Your task to perform on an android device: open app "LinkedIn" Image 0: 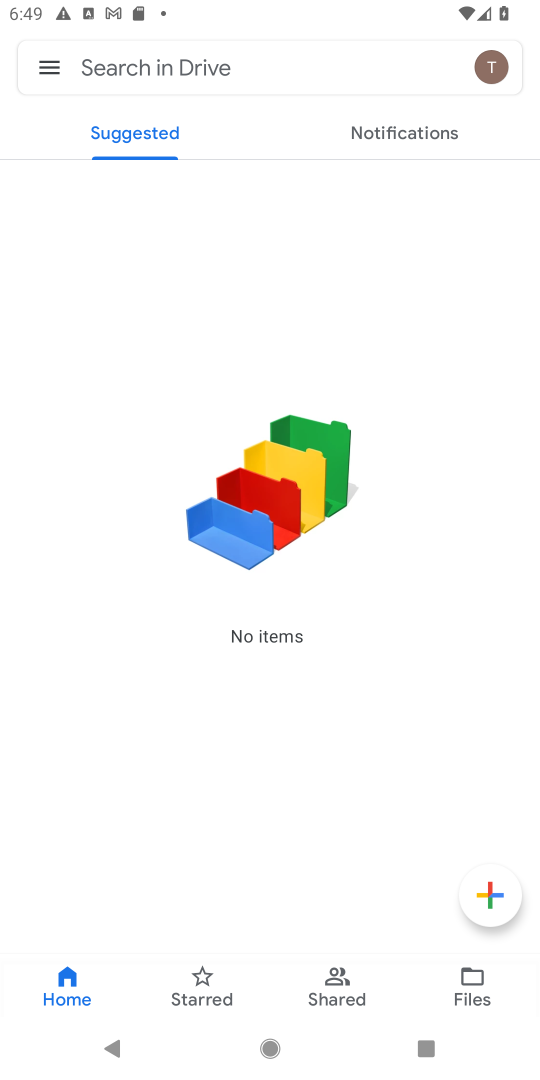
Step 0: press home button
Your task to perform on an android device: open app "LinkedIn" Image 1: 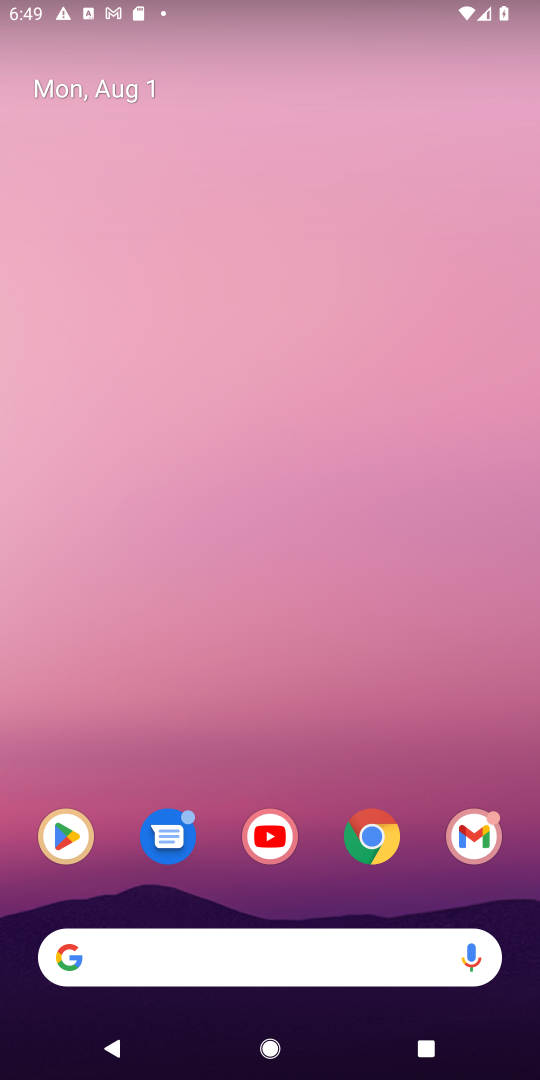
Step 1: click (61, 830)
Your task to perform on an android device: open app "LinkedIn" Image 2: 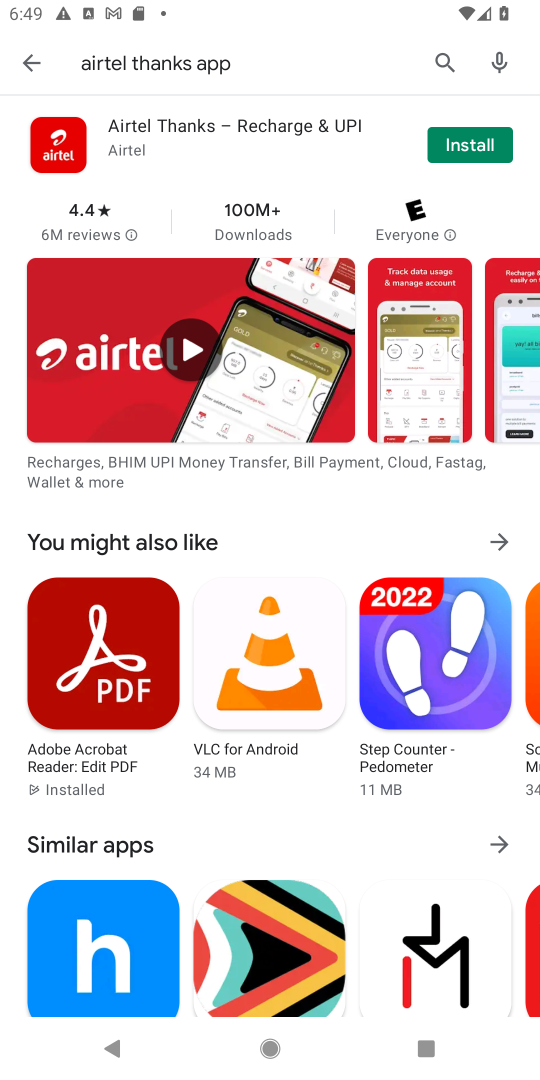
Step 2: click (436, 61)
Your task to perform on an android device: open app "LinkedIn" Image 3: 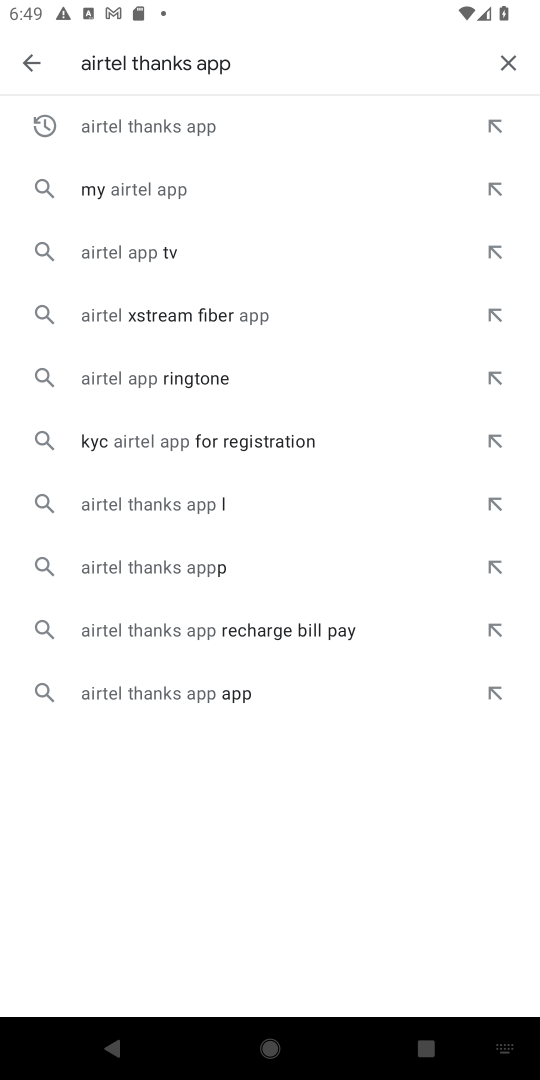
Step 3: click (507, 63)
Your task to perform on an android device: open app "LinkedIn" Image 4: 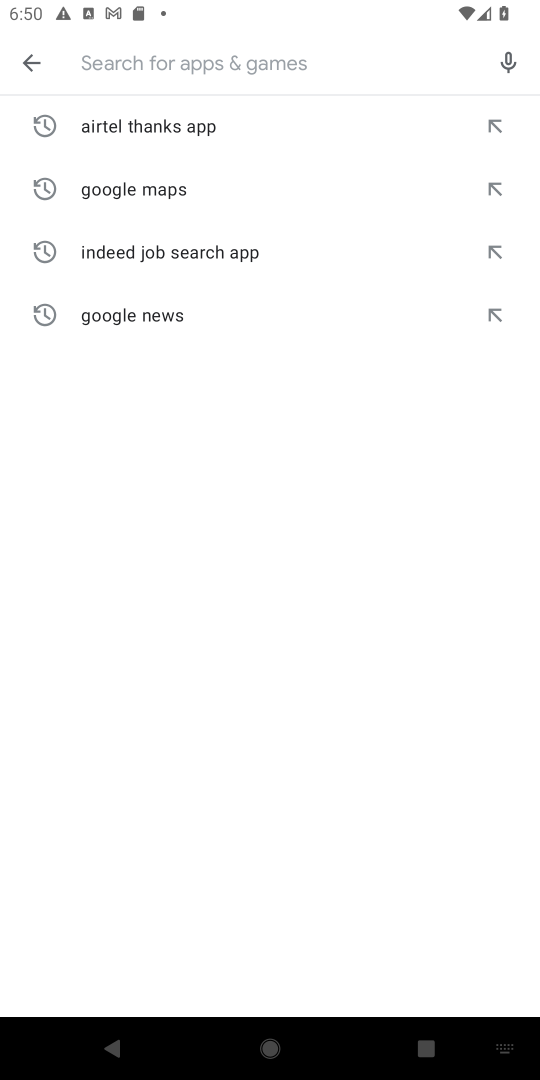
Step 4: type "LinkedIn"
Your task to perform on an android device: open app "LinkedIn" Image 5: 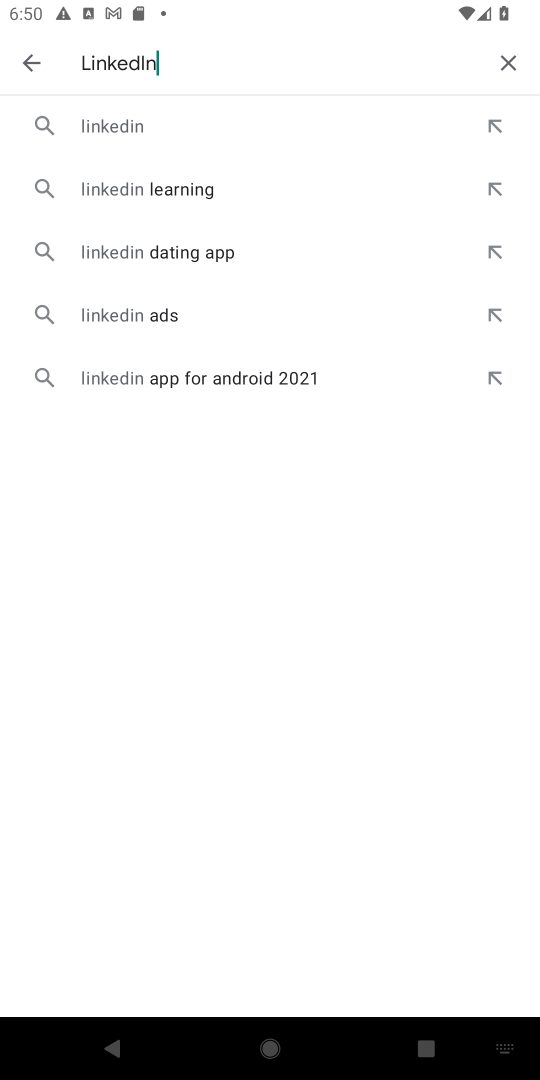
Step 5: click (134, 125)
Your task to perform on an android device: open app "LinkedIn" Image 6: 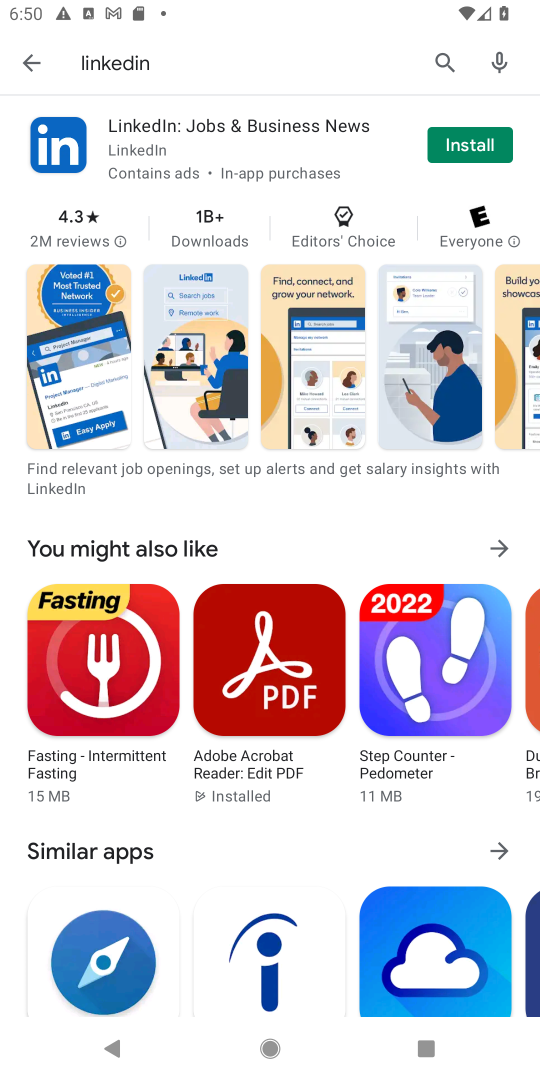
Step 6: task complete